Your task to perform on an android device: See recent photos Image 0: 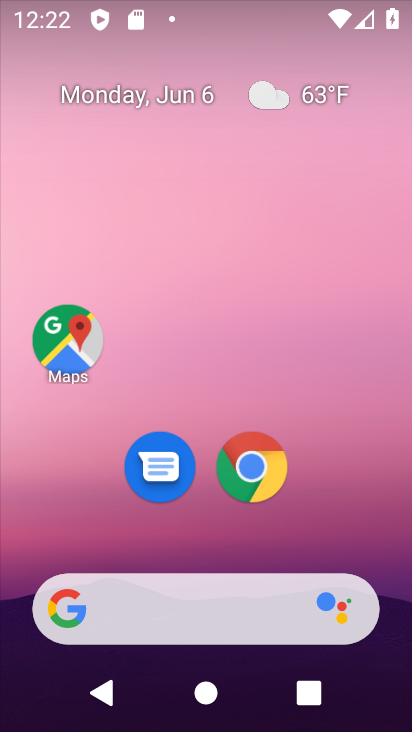
Step 0: drag from (404, 627) to (251, 50)
Your task to perform on an android device: See recent photos Image 1: 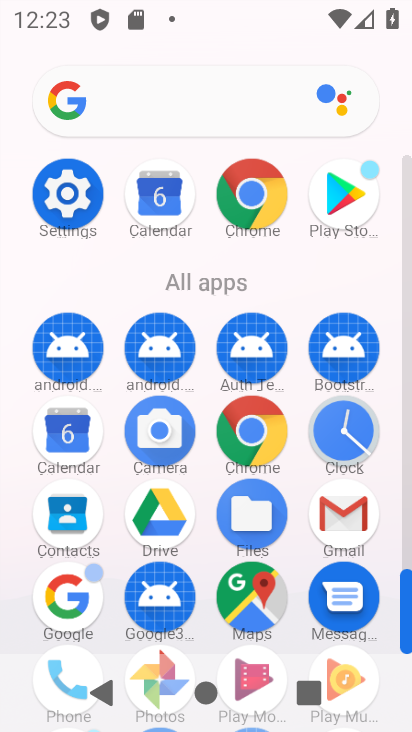
Step 1: drag from (212, 621) to (198, 188)
Your task to perform on an android device: See recent photos Image 2: 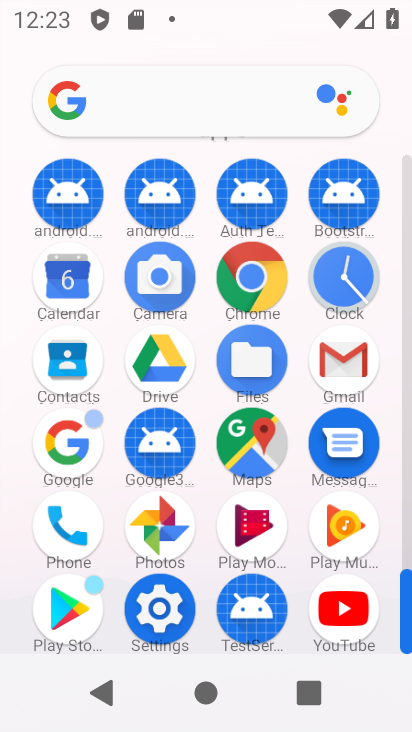
Step 2: click (164, 536)
Your task to perform on an android device: See recent photos Image 3: 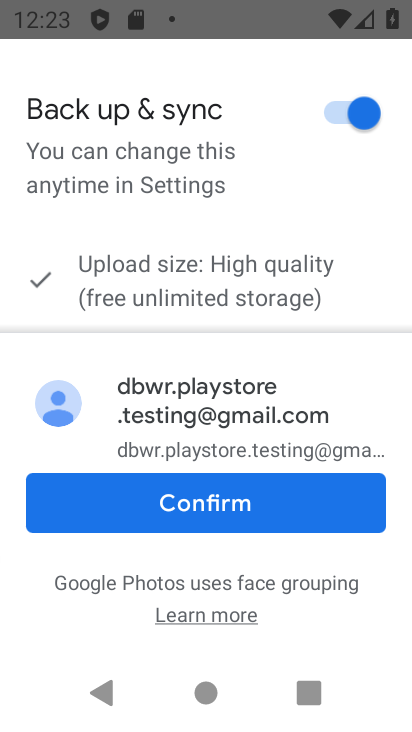
Step 3: click (234, 513)
Your task to perform on an android device: See recent photos Image 4: 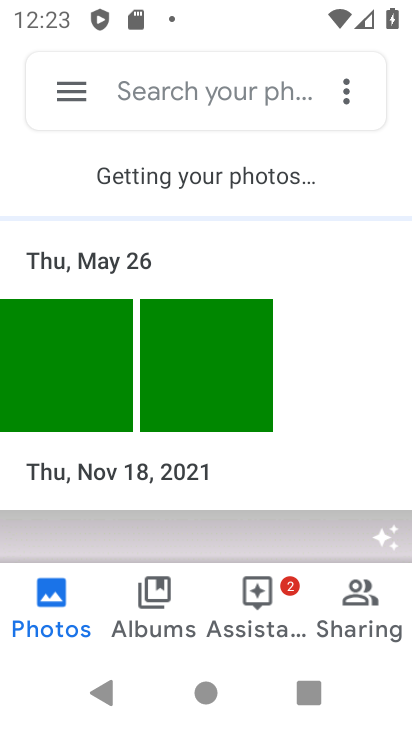
Step 4: click (71, 353)
Your task to perform on an android device: See recent photos Image 5: 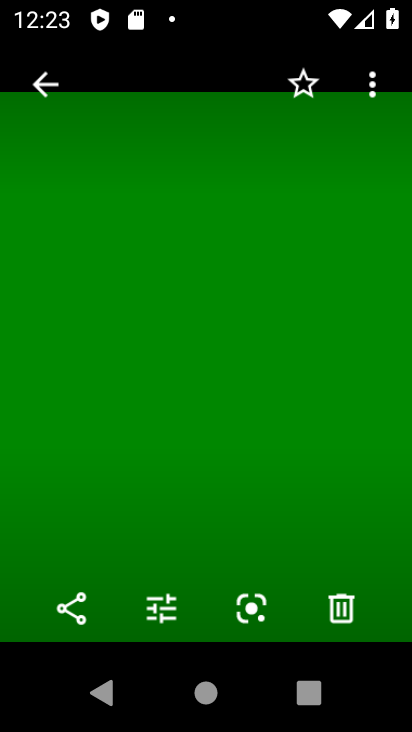
Step 5: task complete